Your task to perform on an android device: Do I have any events today? Image 0: 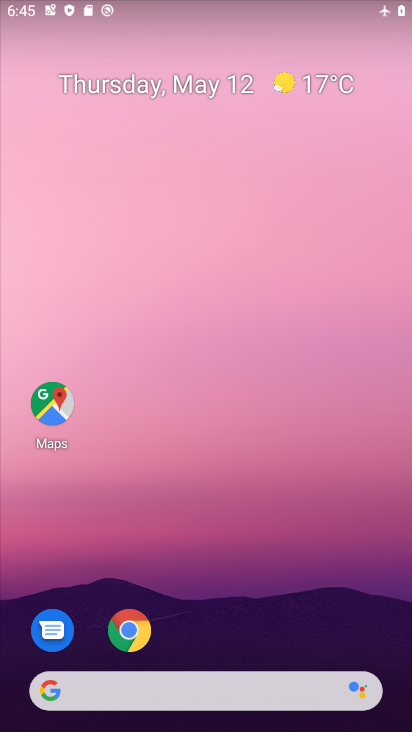
Step 0: drag from (362, 603) to (262, 1)
Your task to perform on an android device: Do I have any events today? Image 1: 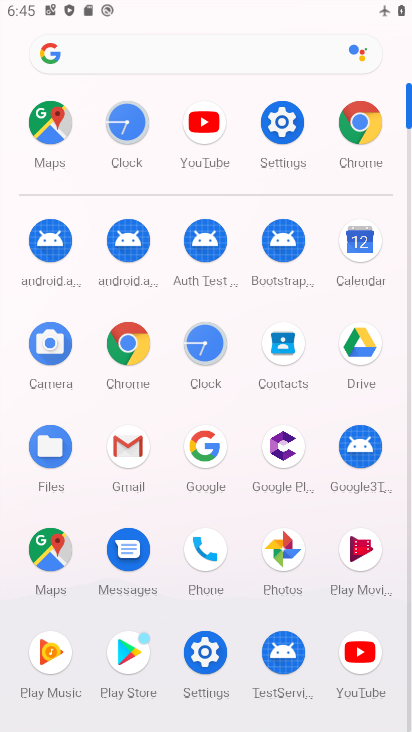
Step 1: click (374, 241)
Your task to perform on an android device: Do I have any events today? Image 2: 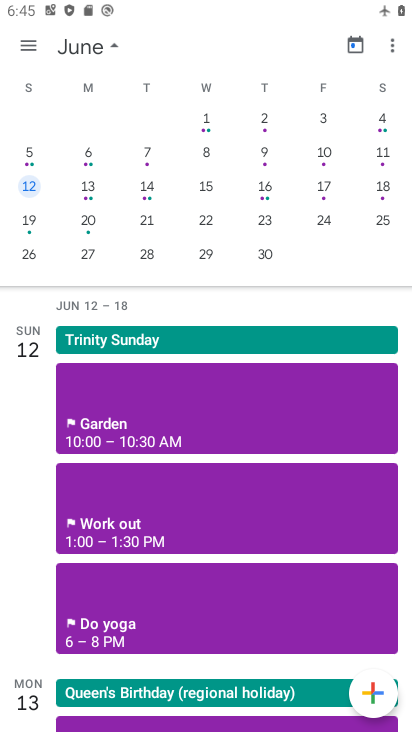
Step 2: drag from (97, 140) to (384, 25)
Your task to perform on an android device: Do I have any events today? Image 3: 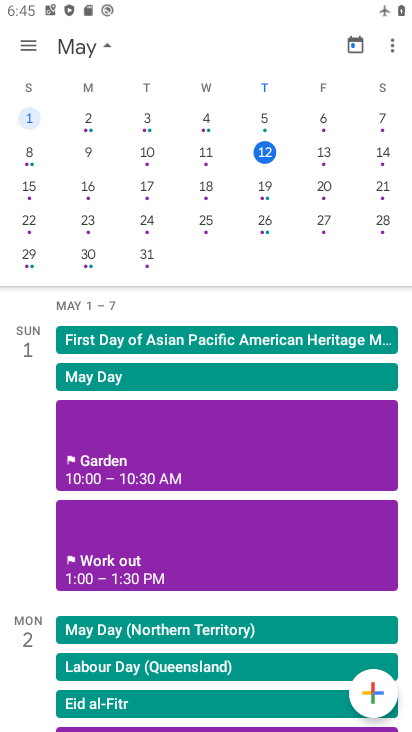
Step 3: click (21, 51)
Your task to perform on an android device: Do I have any events today? Image 4: 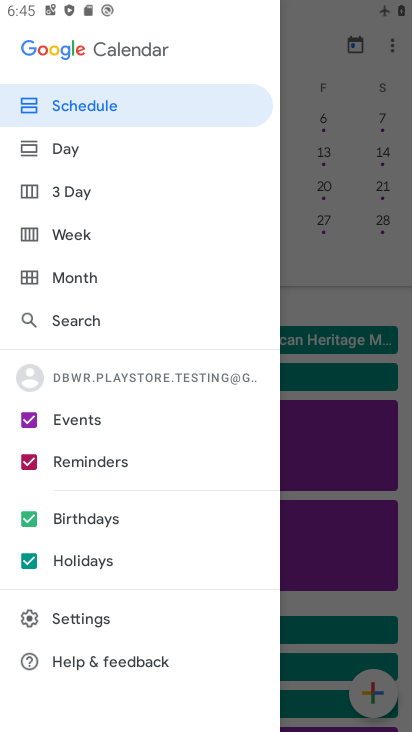
Step 4: click (51, 94)
Your task to perform on an android device: Do I have any events today? Image 5: 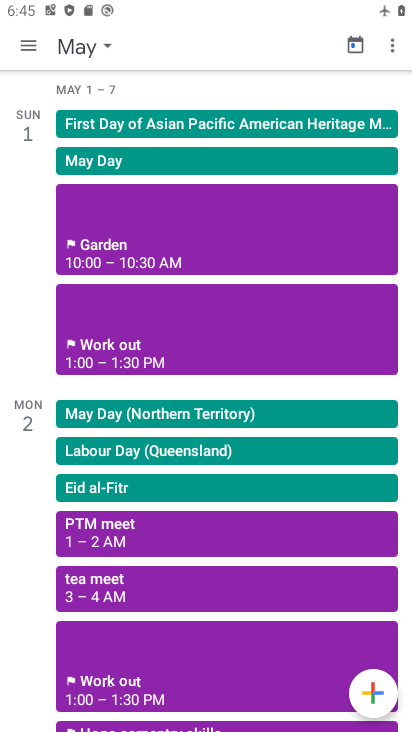
Step 5: click (101, 50)
Your task to perform on an android device: Do I have any events today? Image 6: 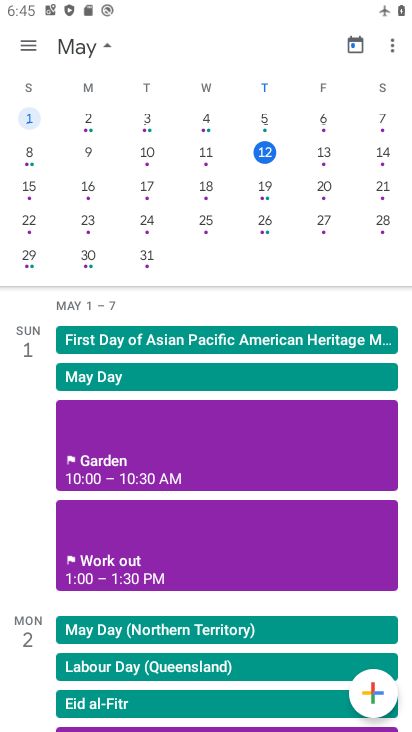
Step 6: click (318, 153)
Your task to perform on an android device: Do I have any events today? Image 7: 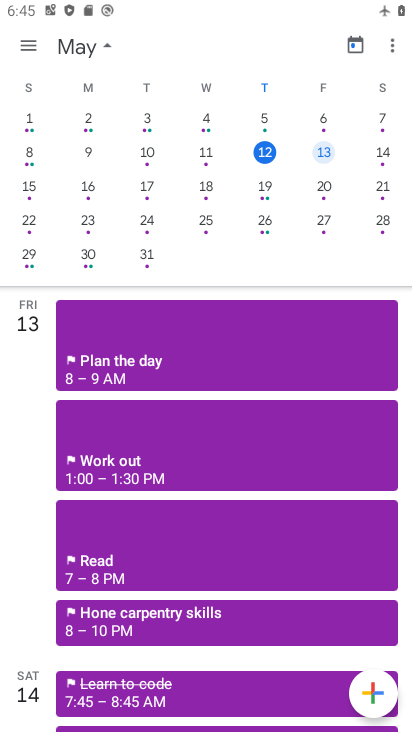
Step 7: click (240, 358)
Your task to perform on an android device: Do I have any events today? Image 8: 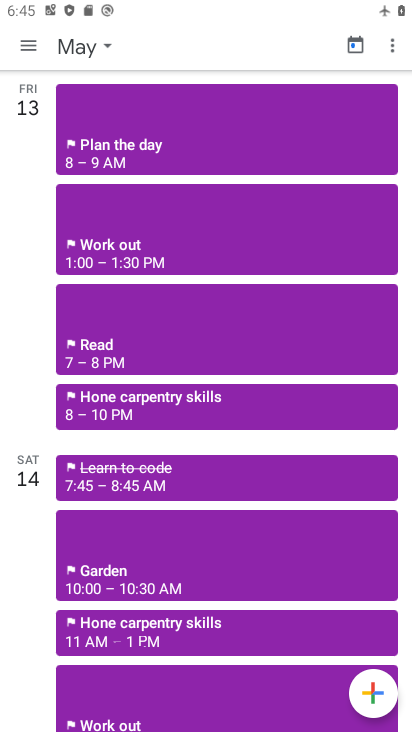
Step 8: task complete